Your task to perform on an android device: toggle show notifications on the lock screen Image 0: 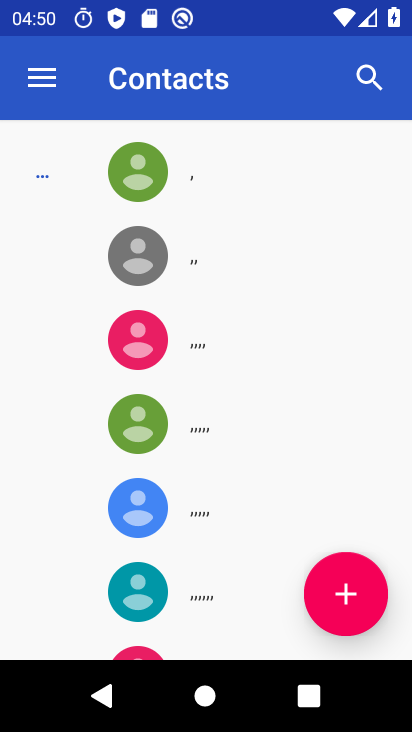
Step 0: press home button
Your task to perform on an android device: toggle show notifications on the lock screen Image 1: 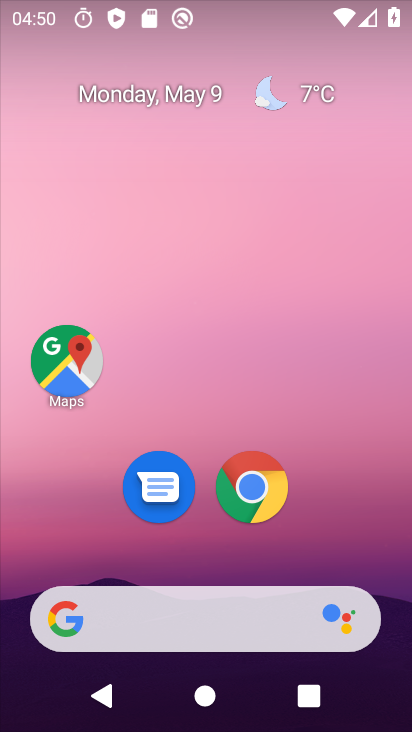
Step 1: drag from (192, 563) to (205, 131)
Your task to perform on an android device: toggle show notifications on the lock screen Image 2: 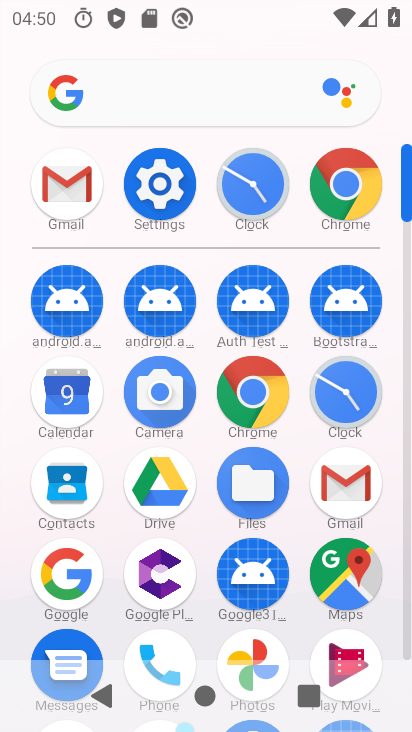
Step 2: click (153, 183)
Your task to perform on an android device: toggle show notifications on the lock screen Image 3: 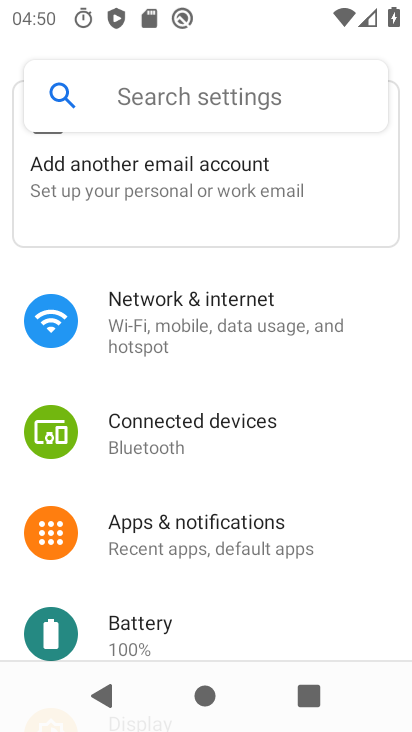
Step 3: click (228, 531)
Your task to perform on an android device: toggle show notifications on the lock screen Image 4: 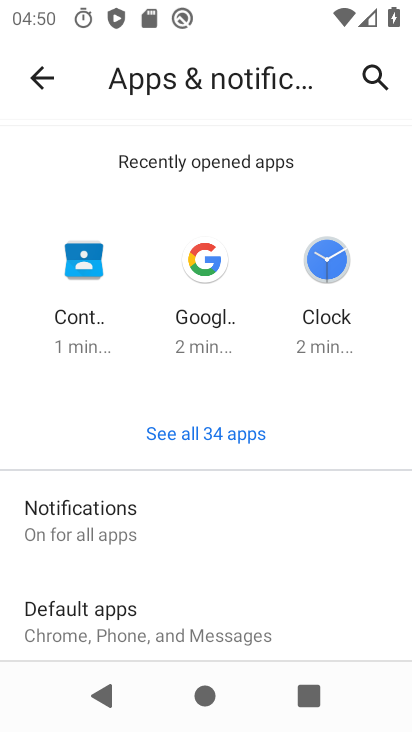
Step 4: drag from (204, 588) to (158, 278)
Your task to perform on an android device: toggle show notifications on the lock screen Image 5: 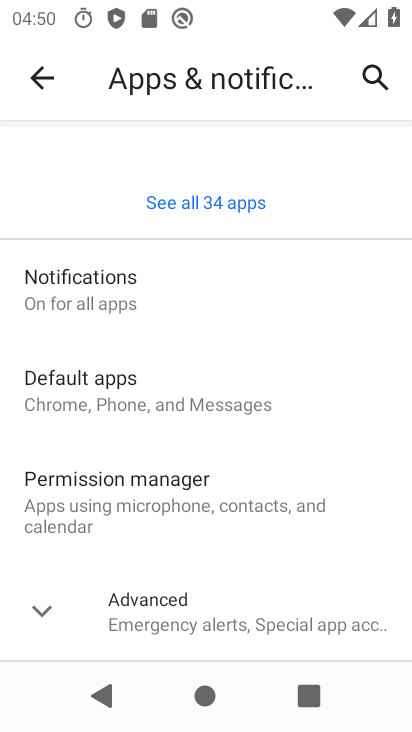
Step 5: click (130, 263)
Your task to perform on an android device: toggle show notifications on the lock screen Image 6: 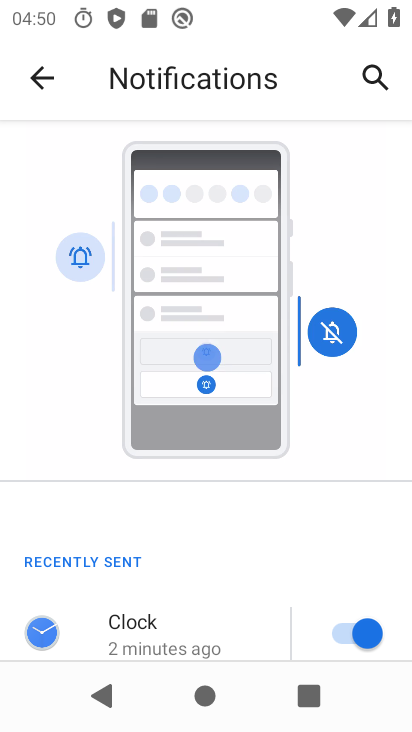
Step 6: drag from (244, 611) to (99, 330)
Your task to perform on an android device: toggle show notifications on the lock screen Image 7: 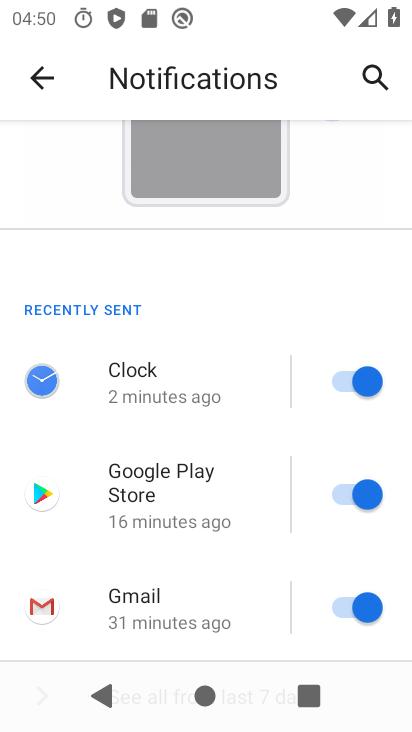
Step 7: drag from (251, 629) to (218, 375)
Your task to perform on an android device: toggle show notifications on the lock screen Image 8: 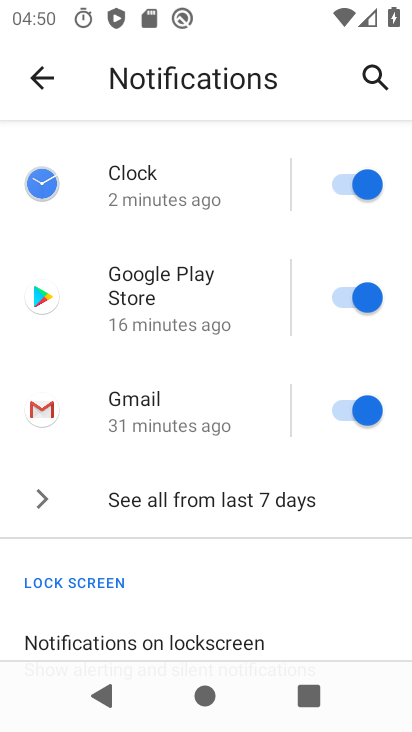
Step 8: click (225, 639)
Your task to perform on an android device: toggle show notifications on the lock screen Image 9: 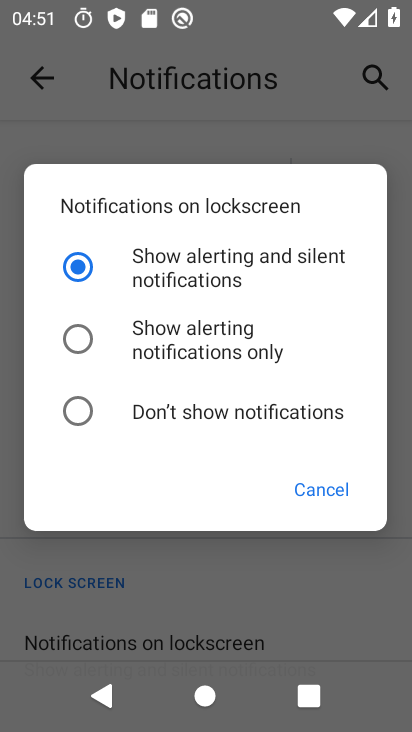
Step 9: click (74, 335)
Your task to perform on an android device: toggle show notifications on the lock screen Image 10: 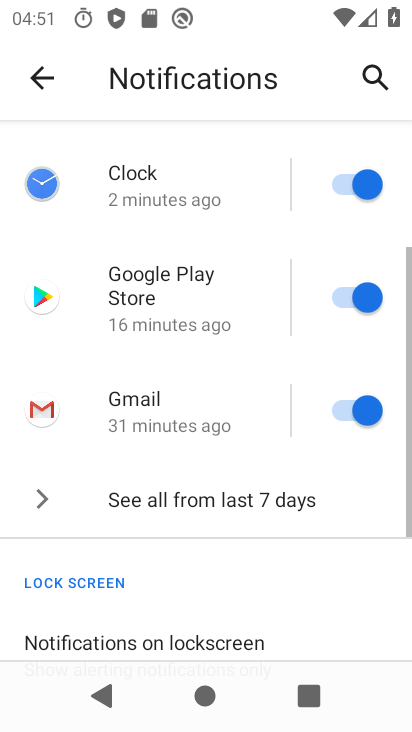
Step 10: task complete